Your task to perform on an android device: Go to accessibility settings Image 0: 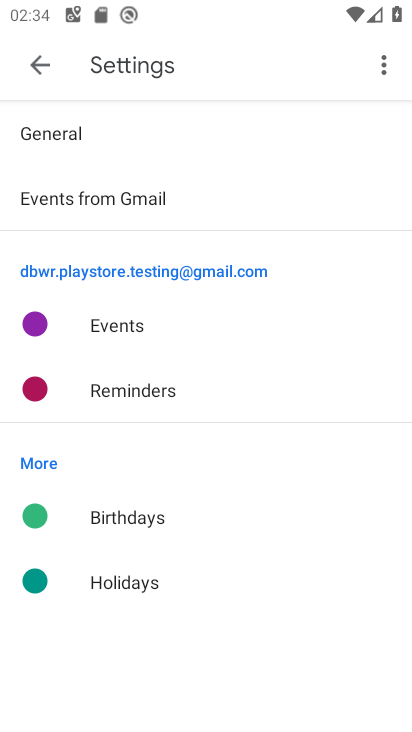
Step 0: press home button
Your task to perform on an android device: Go to accessibility settings Image 1: 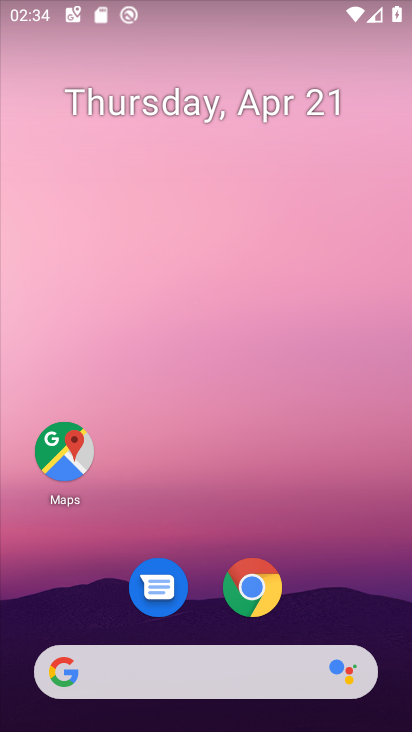
Step 1: drag from (342, 607) to (365, 173)
Your task to perform on an android device: Go to accessibility settings Image 2: 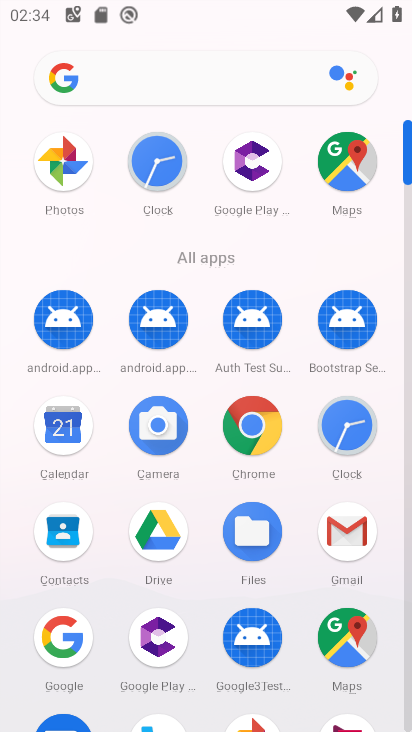
Step 2: drag from (202, 604) to (218, 285)
Your task to perform on an android device: Go to accessibility settings Image 3: 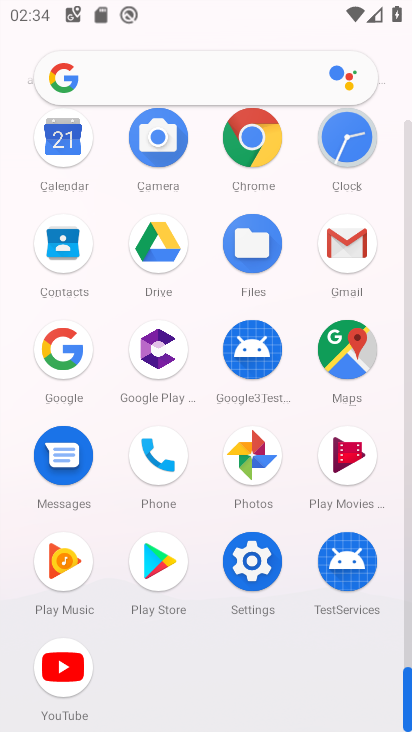
Step 3: click (258, 588)
Your task to perform on an android device: Go to accessibility settings Image 4: 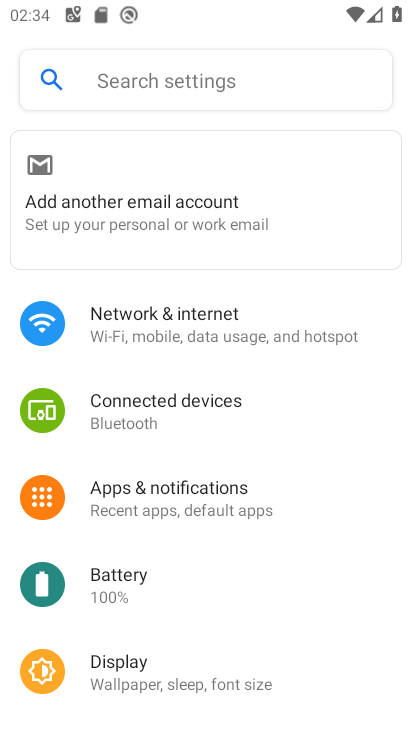
Step 4: drag from (365, 614) to (373, 394)
Your task to perform on an android device: Go to accessibility settings Image 5: 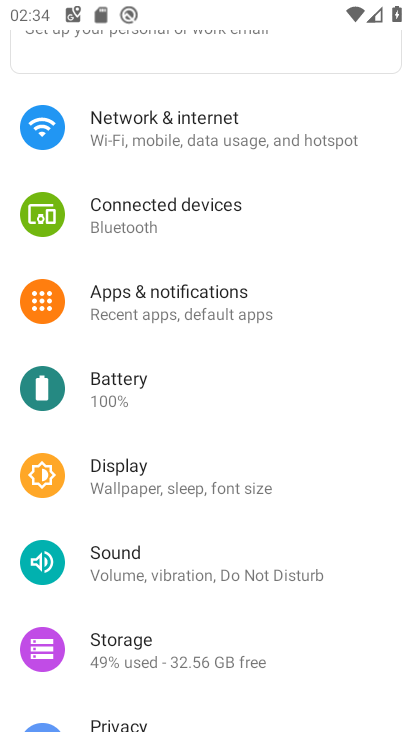
Step 5: drag from (336, 629) to (353, 433)
Your task to perform on an android device: Go to accessibility settings Image 6: 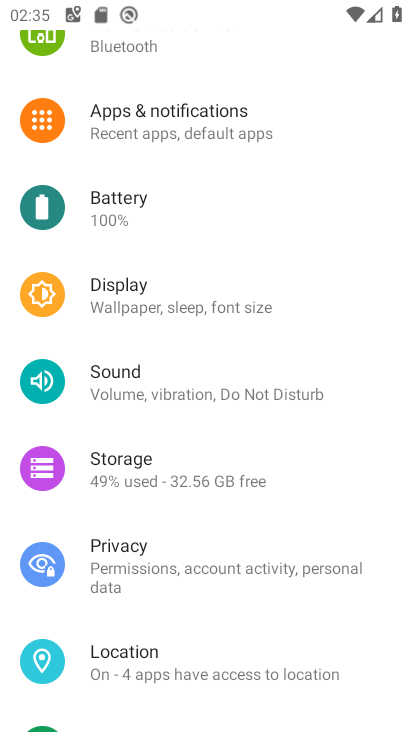
Step 6: drag from (364, 630) to (360, 460)
Your task to perform on an android device: Go to accessibility settings Image 7: 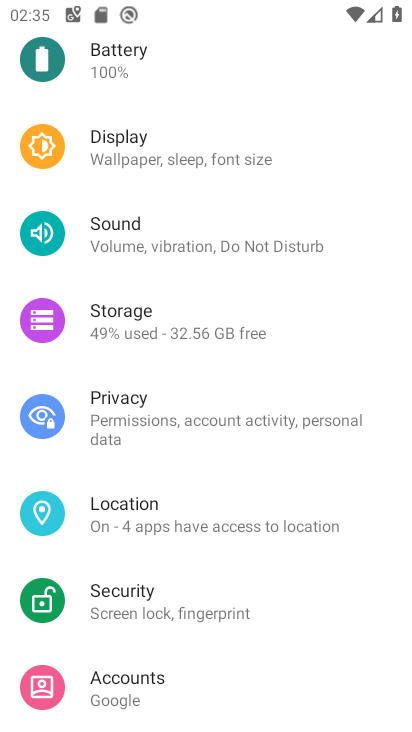
Step 7: drag from (345, 626) to (358, 428)
Your task to perform on an android device: Go to accessibility settings Image 8: 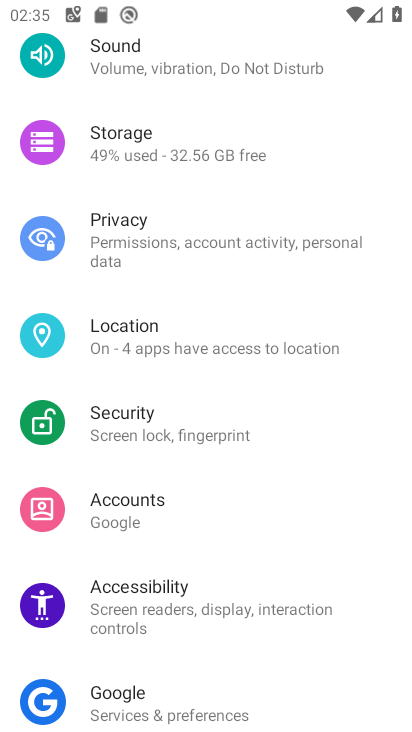
Step 8: drag from (378, 525) to (386, 381)
Your task to perform on an android device: Go to accessibility settings Image 9: 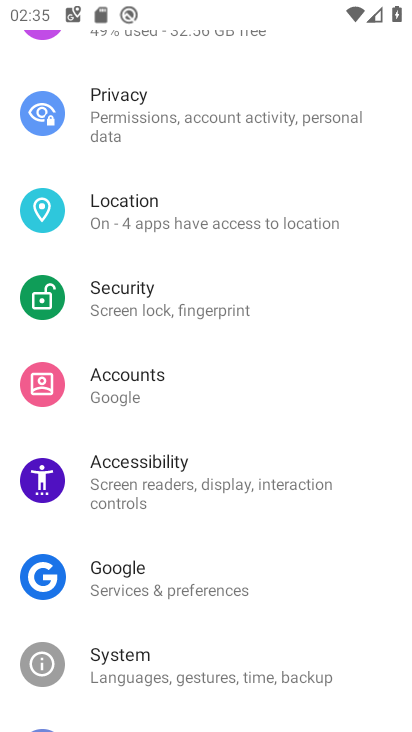
Step 9: drag from (339, 618) to (369, 423)
Your task to perform on an android device: Go to accessibility settings Image 10: 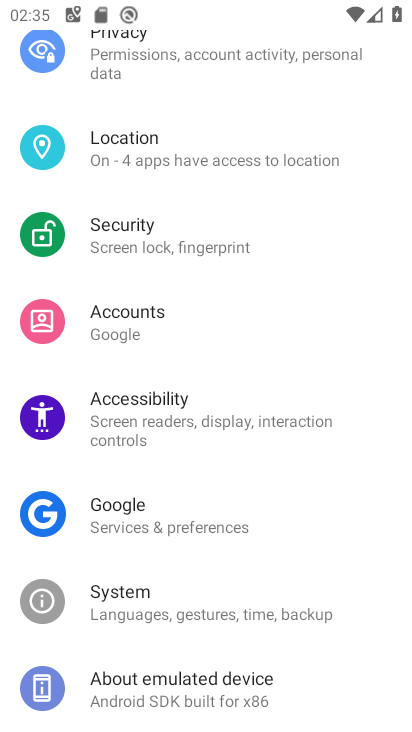
Step 10: drag from (354, 562) to (369, 363)
Your task to perform on an android device: Go to accessibility settings Image 11: 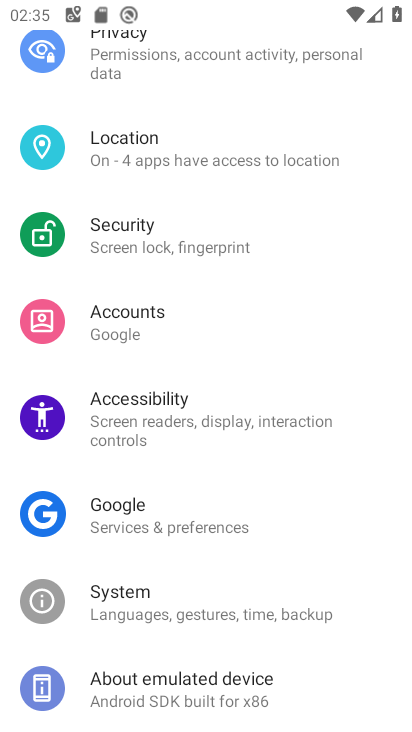
Step 11: click (208, 399)
Your task to perform on an android device: Go to accessibility settings Image 12: 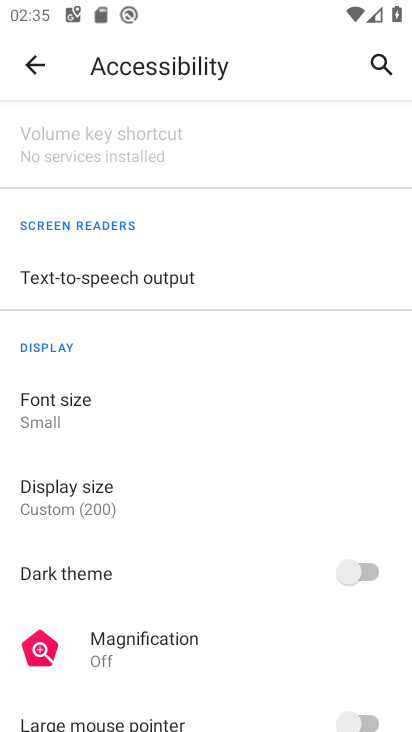
Step 12: task complete